Your task to perform on an android device: set an alarm Image 0: 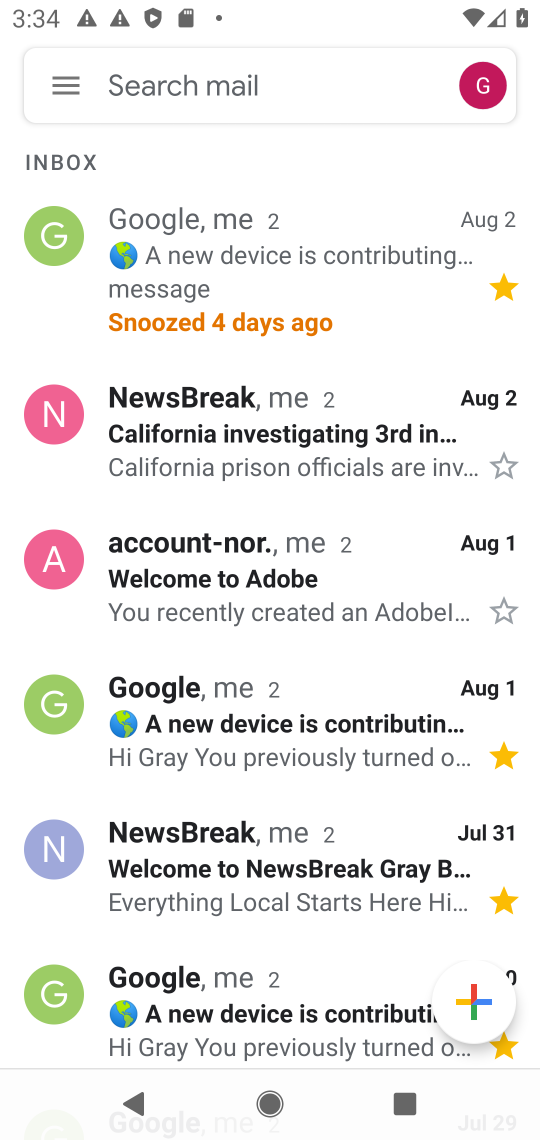
Step 0: press home button
Your task to perform on an android device: set an alarm Image 1: 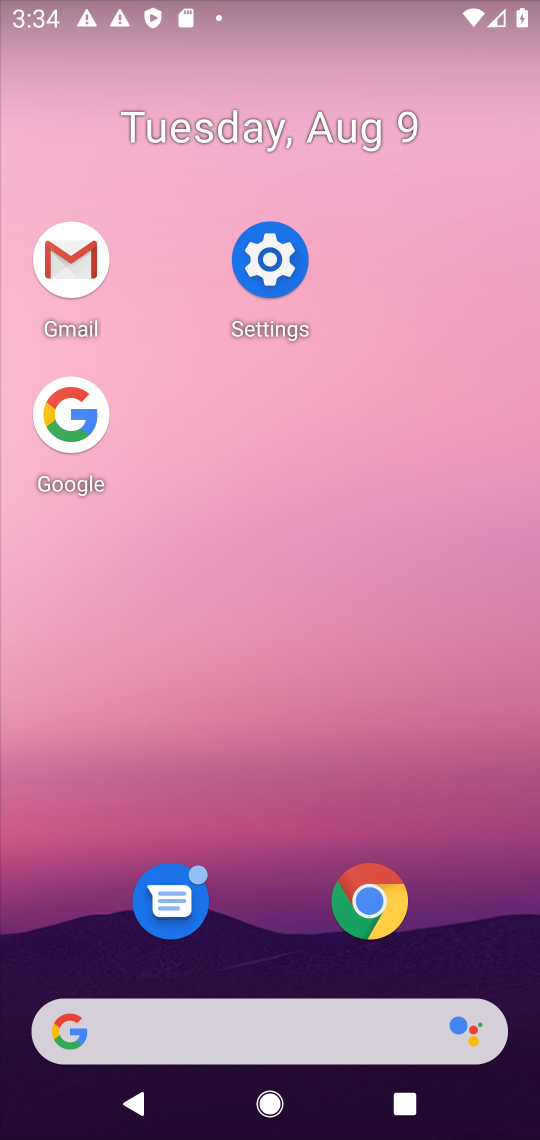
Step 1: drag from (277, 817) to (304, 239)
Your task to perform on an android device: set an alarm Image 2: 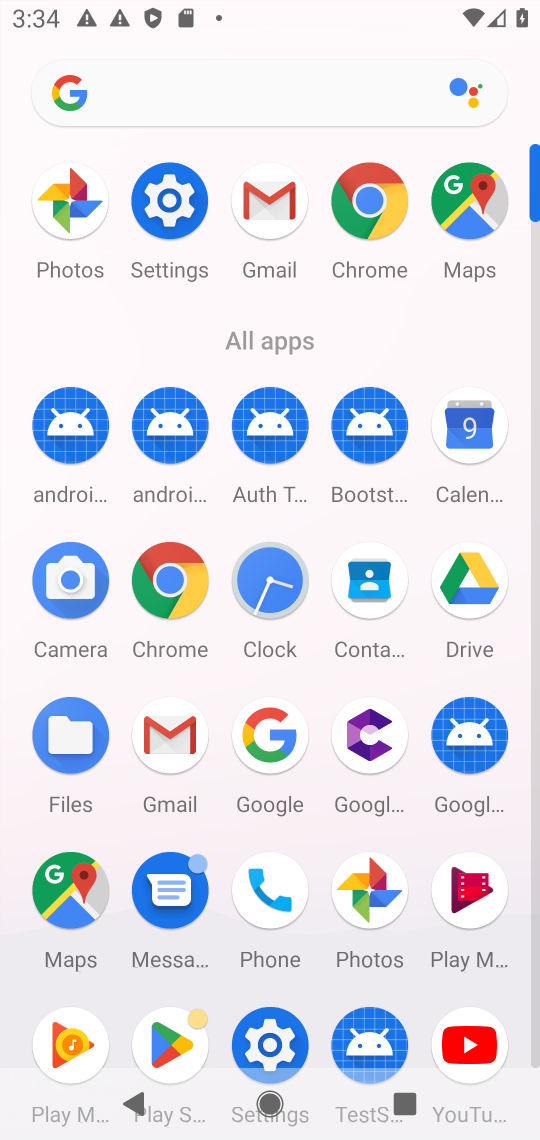
Step 2: drag from (279, 585) to (181, 430)
Your task to perform on an android device: set an alarm Image 3: 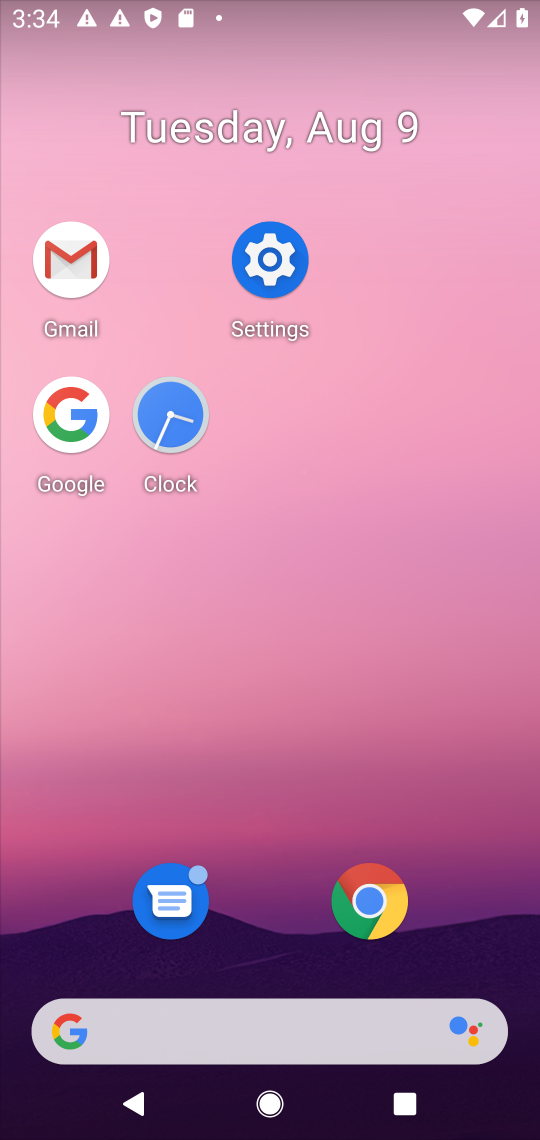
Step 3: click (181, 426)
Your task to perform on an android device: set an alarm Image 4: 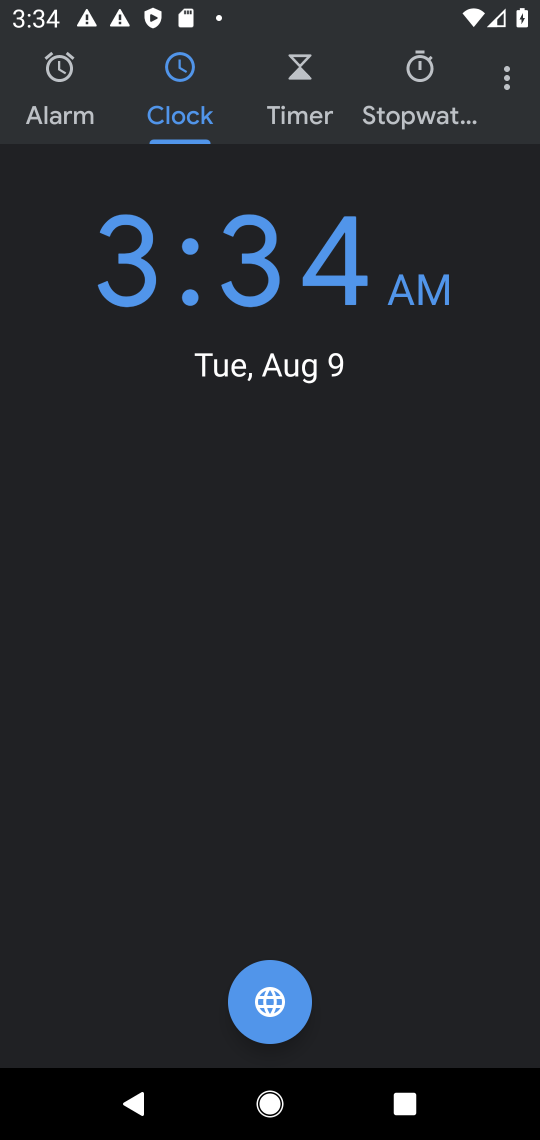
Step 4: click (71, 61)
Your task to perform on an android device: set an alarm Image 5: 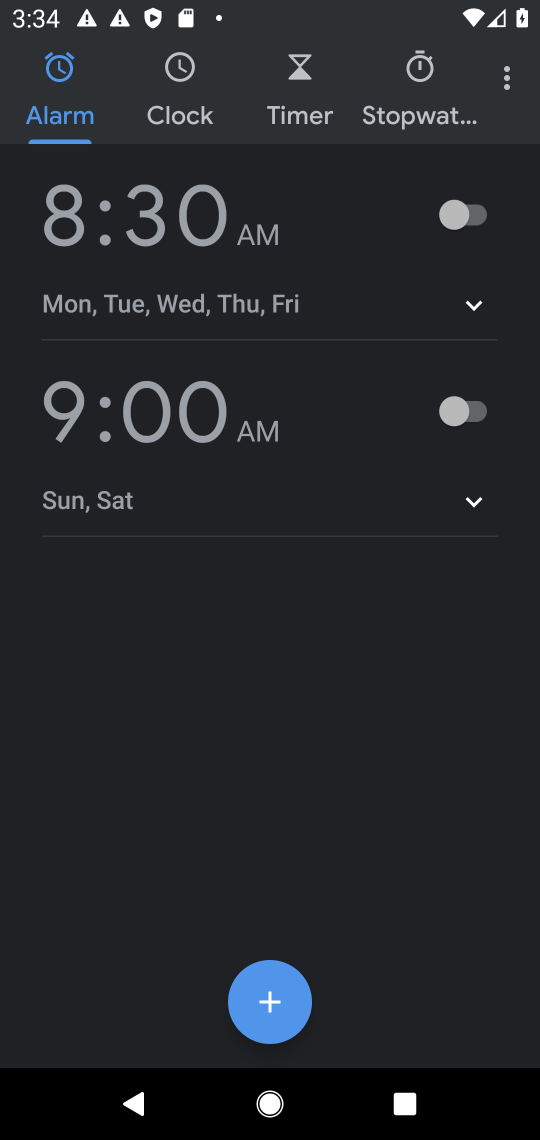
Step 5: click (446, 235)
Your task to perform on an android device: set an alarm Image 6: 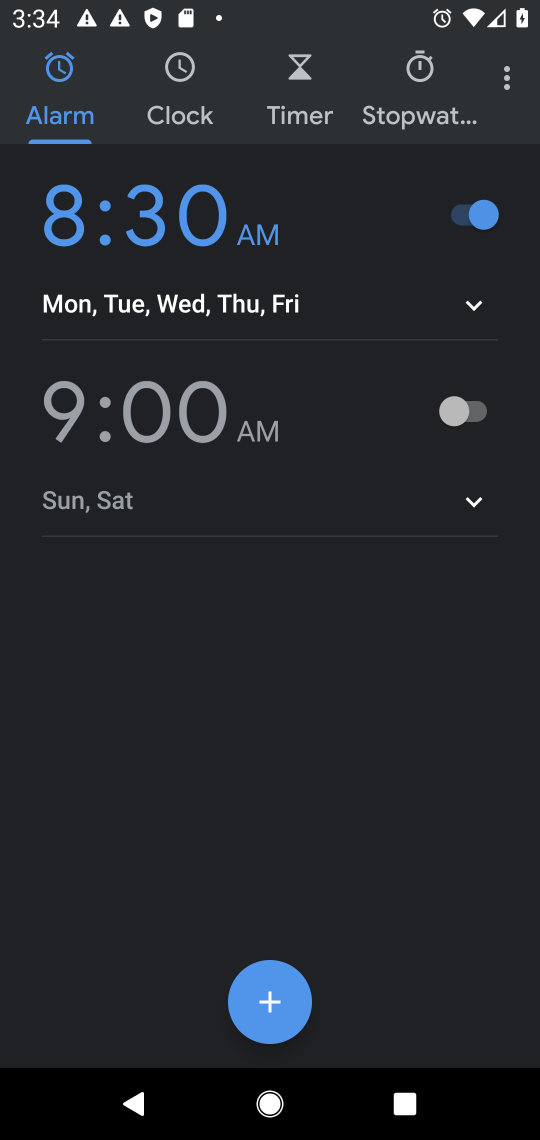
Step 6: task complete